Your task to perform on an android device: turn off javascript in the chrome app Image 0: 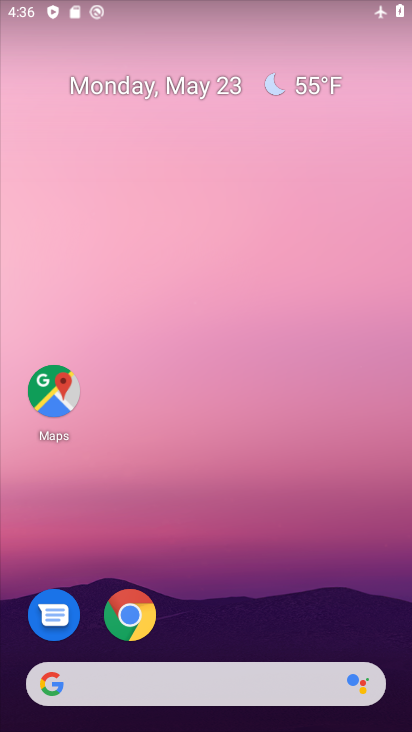
Step 0: drag from (381, 626) to (366, 240)
Your task to perform on an android device: turn off javascript in the chrome app Image 1: 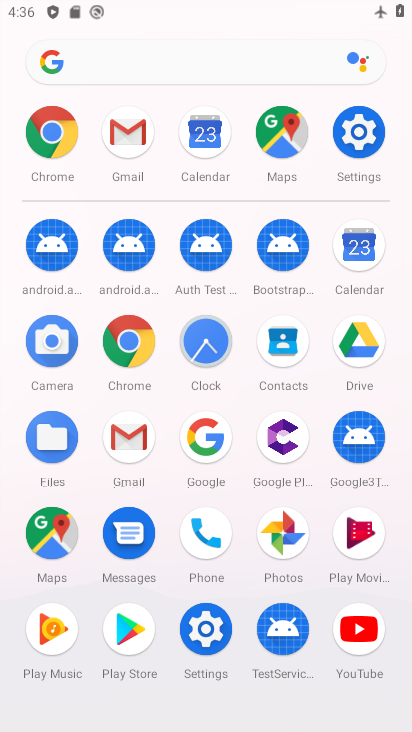
Step 1: click (140, 356)
Your task to perform on an android device: turn off javascript in the chrome app Image 2: 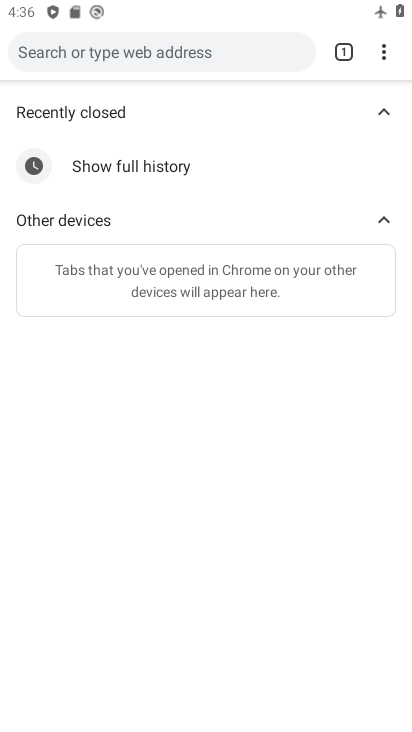
Step 2: click (387, 53)
Your task to perform on an android device: turn off javascript in the chrome app Image 3: 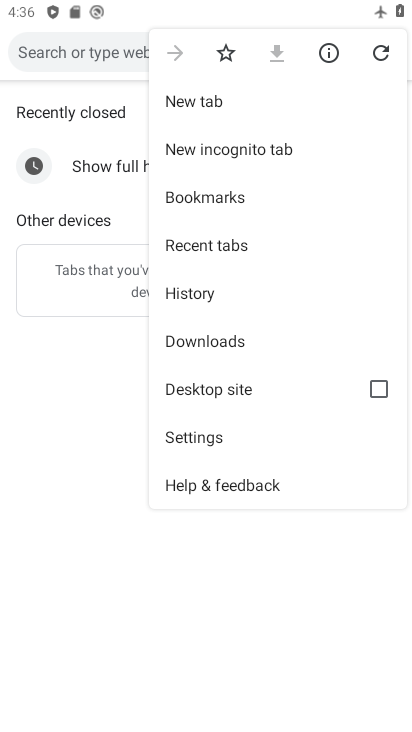
Step 3: click (248, 441)
Your task to perform on an android device: turn off javascript in the chrome app Image 4: 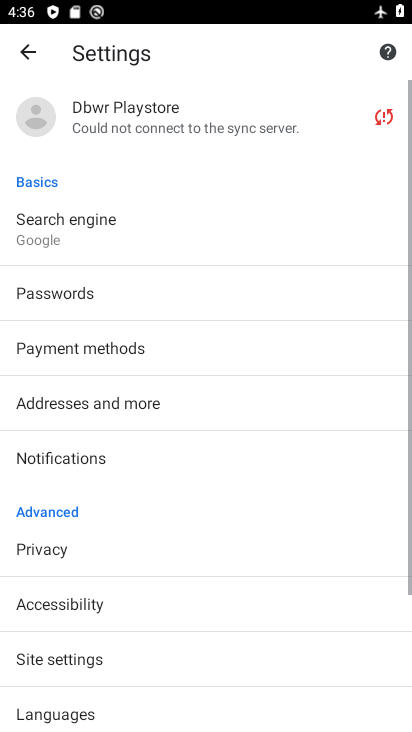
Step 4: drag from (255, 505) to (275, 425)
Your task to perform on an android device: turn off javascript in the chrome app Image 5: 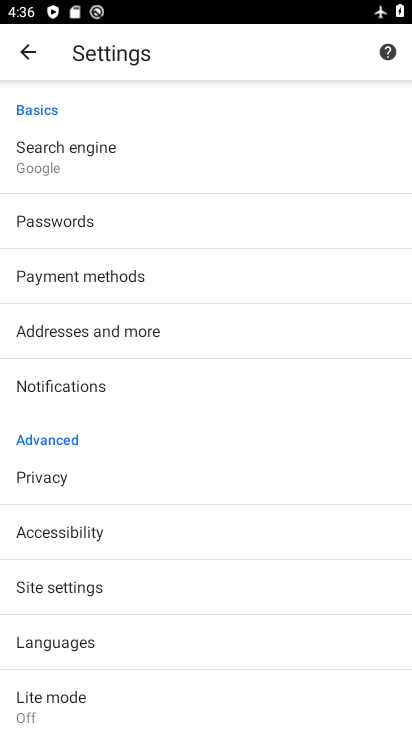
Step 5: drag from (288, 529) to (306, 452)
Your task to perform on an android device: turn off javascript in the chrome app Image 6: 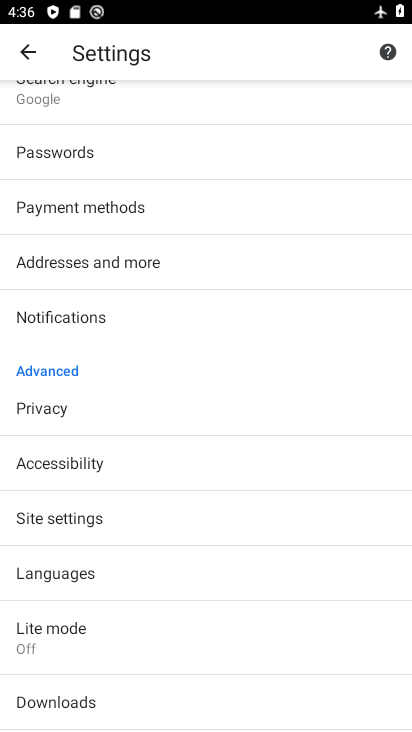
Step 6: drag from (300, 573) to (315, 443)
Your task to perform on an android device: turn off javascript in the chrome app Image 7: 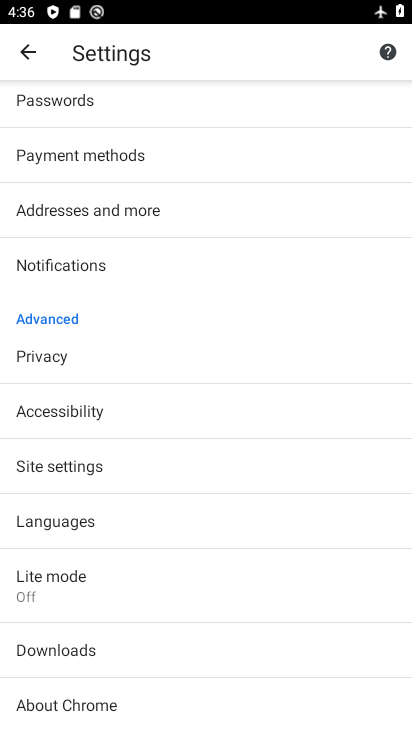
Step 7: drag from (309, 598) to (325, 467)
Your task to perform on an android device: turn off javascript in the chrome app Image 8: 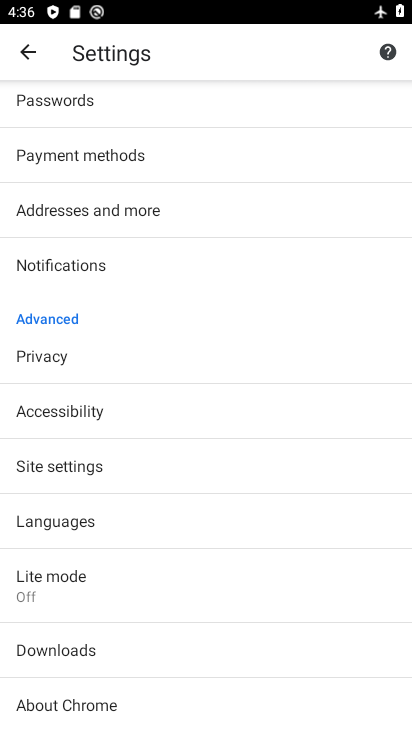
Step 8: drag from (330, 365) to (320, 478)
Your task to perform on an android device: turn off javascript in the chrome app Image 9: 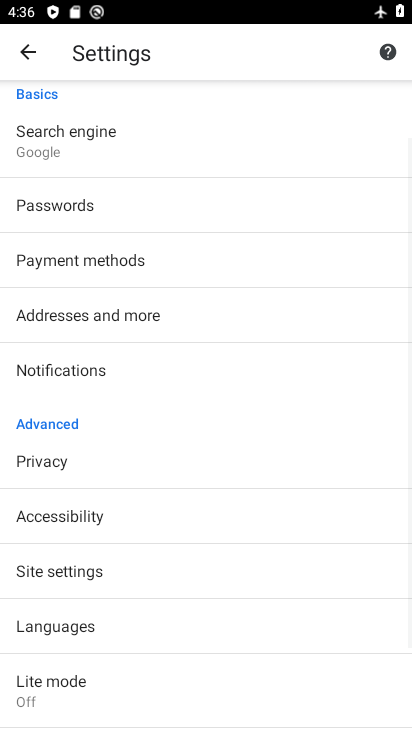
Step 9: drag from (323, 362) to (325, 483)
Your task to perform on an android device: turn off javascript in the chrome app Image 10: 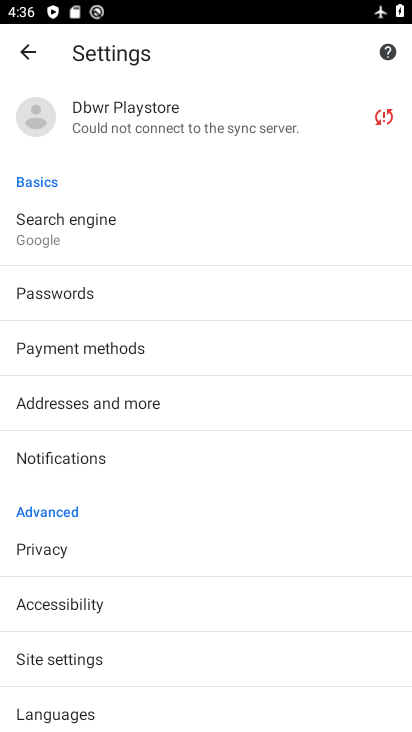
Step 10: drag from (325, 385) to (322, 485)
Your task to perform on an android device: turn off javascript in the chrome app Image 11: 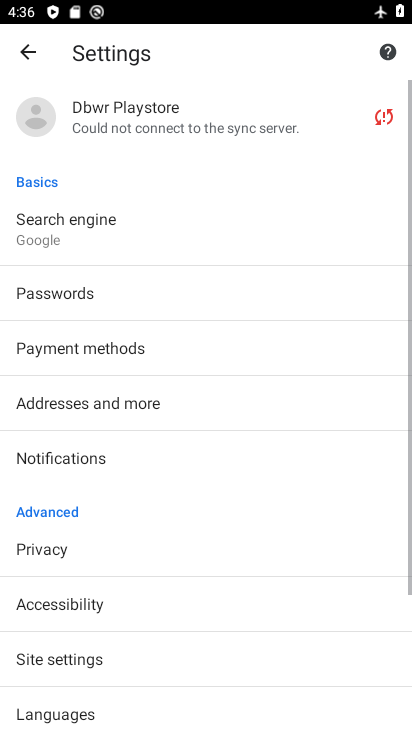
Step 11: drag from (322, 531) to (341, 386)
Your task to perform on an android device: turn off javascript in the chrome app Image 12: 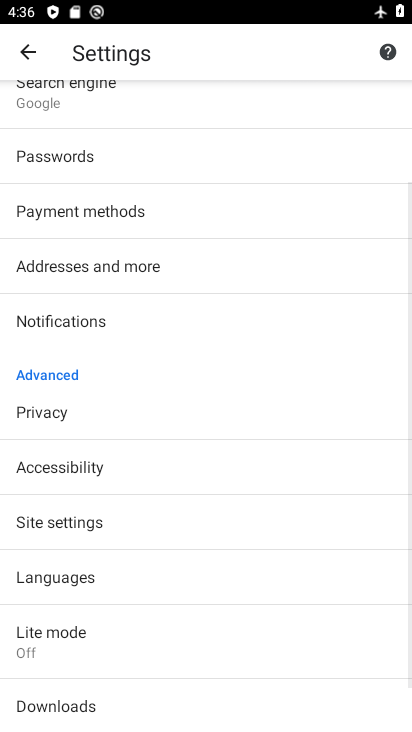
Step 12: drag from (340, 589) to (352, 468)
Your task to perform on an android device: turn off javascript in the chrome app Image 13: 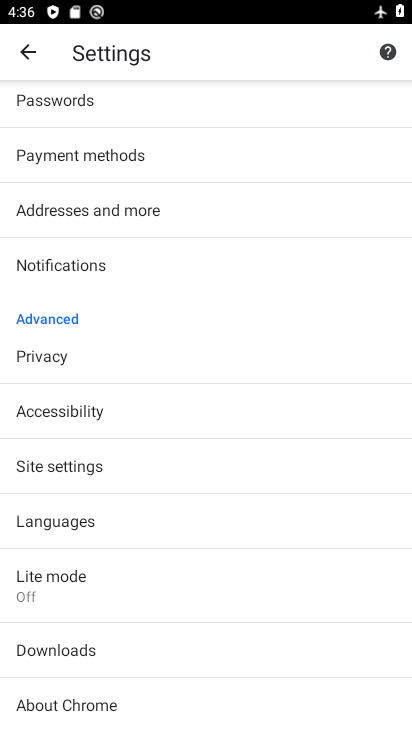
Step 13: drag from (324, 634) to (332, 523)
Your task to perform on an android device: turn off javascript in the chrome app Image 14: 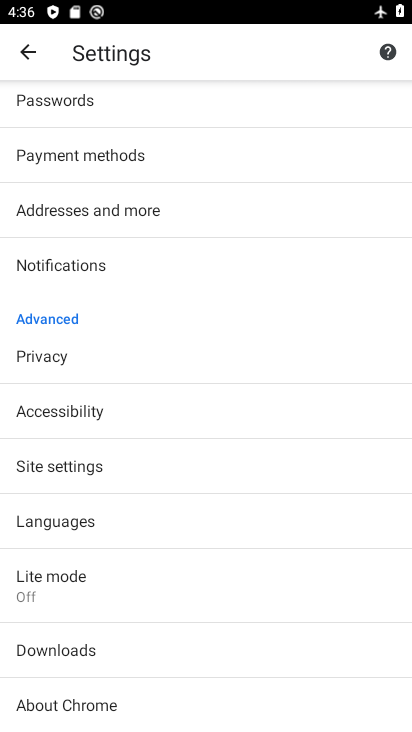
Step 14: click (212, 456)
Your task to perform on an android device: turn off javascript in the chrome app Image 15: 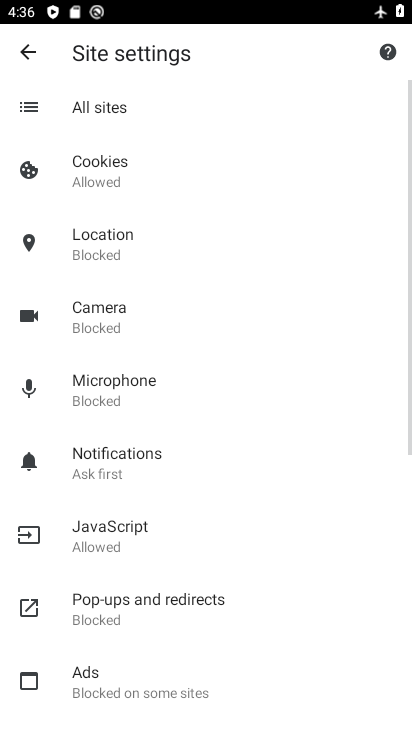
Step 15: drag from (316, 602) to (313, 511)
Your task to perform on an android device: turn off javascript in the chrome app Image 16: 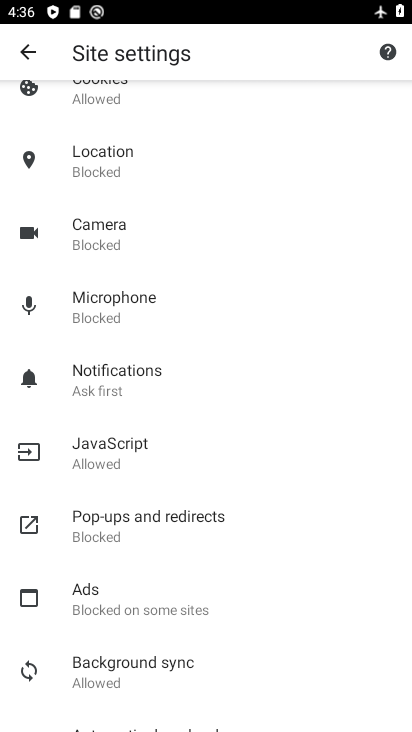
Step 16: drag from (342, 649) to (355, 523)
Your task to perform on an android device: turn off javascript in the chrome app Image 17: 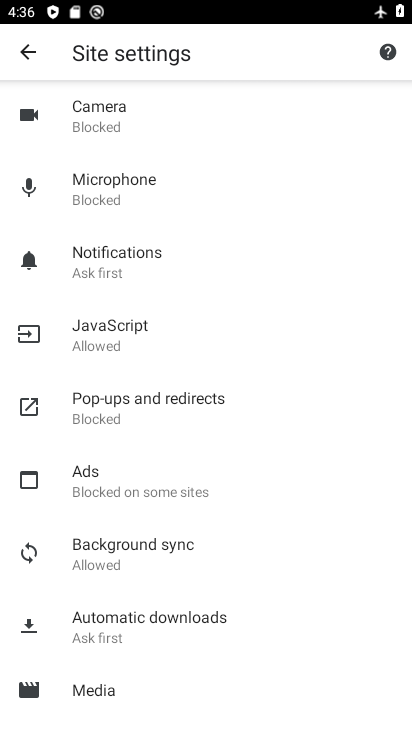
Step 17: drag from (345, 649) to (362, 532)
Your task to perform on an android device: turn off javascript in the chrome app Image 18: 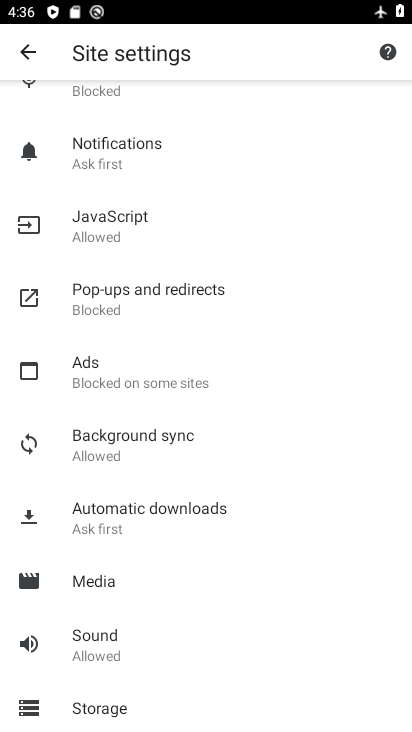
Step 18: drag from (356, 664) to (376, 466)
Your task to perform on an android device: turn off javascript in the chrome app Image 19: 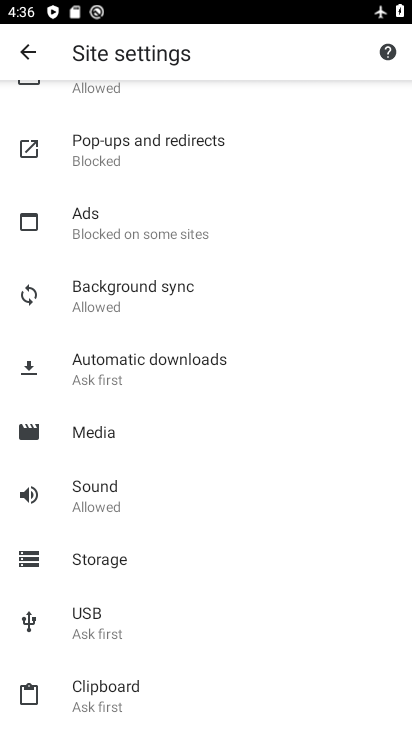
Step 19: drag from (372, 397) to (355, 520)
Your task to perform on an android device: turn off javascript in the chrome app Image 20: 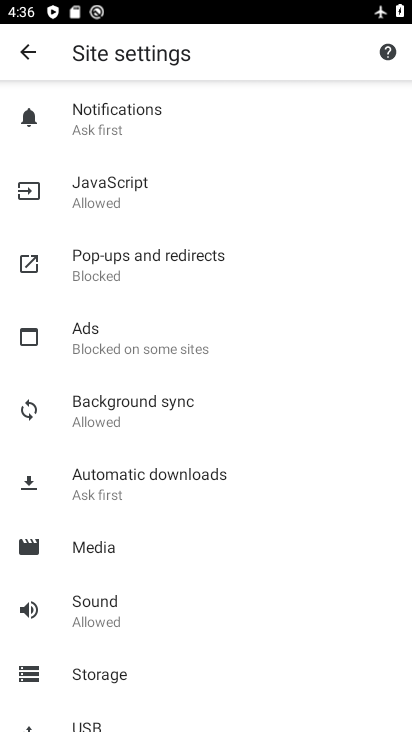
Step 20: drag from (336, 381) to (317, 501)
Your task to perform on an android device: turn off javascript in the chrome app Image 21: 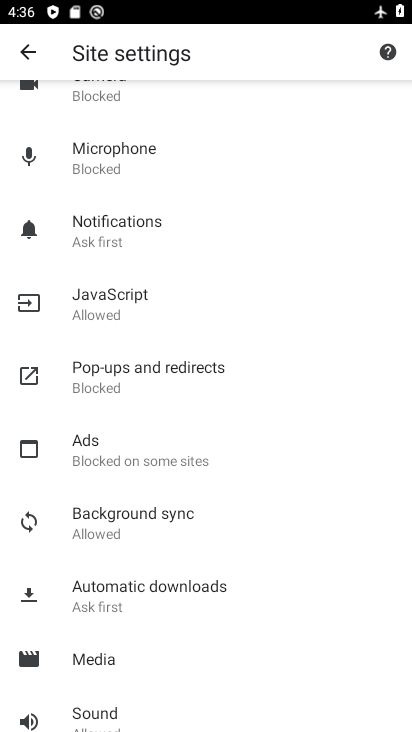
Step 21: click (148, 303)
Your task to perform on an android device: turn off javascript in the chrome app Image 22: 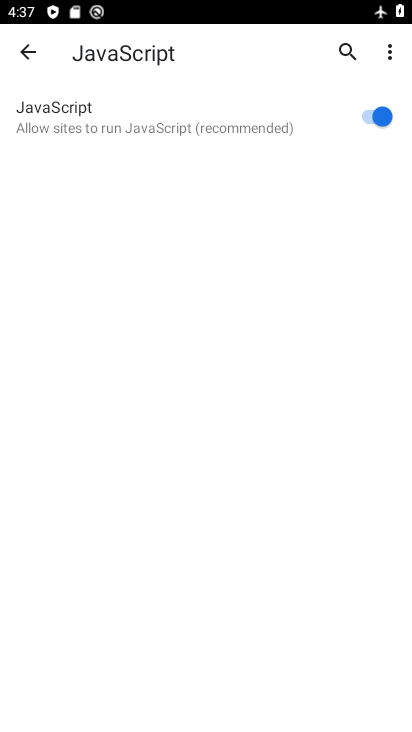
Step 22: click (380, 119)
Your task to perform on an android device: turn off javascript in the chrome app Image 23: 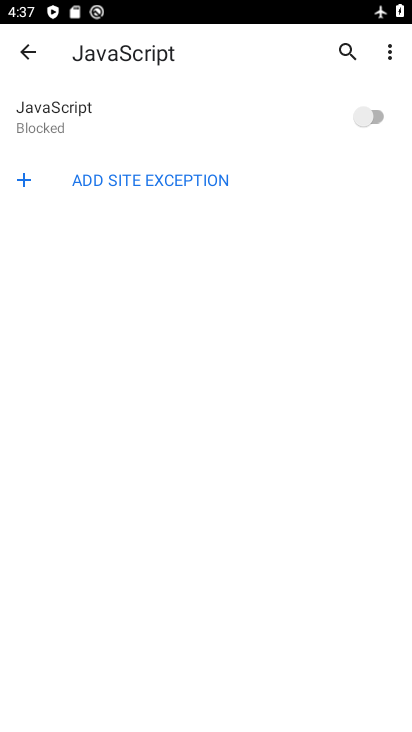
Step 23: task complete